Your task to perform on an android device: Is it going to rain this weekend? Image 0: 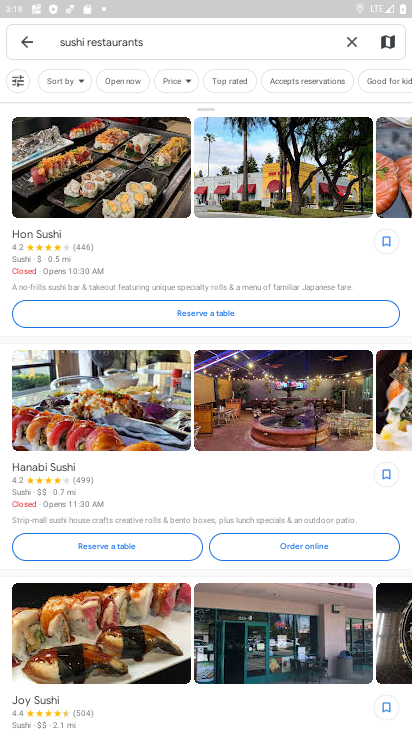
Step 0: press home button
Your task to perform on an android device: Is it going to rain this weekend? Image 1: 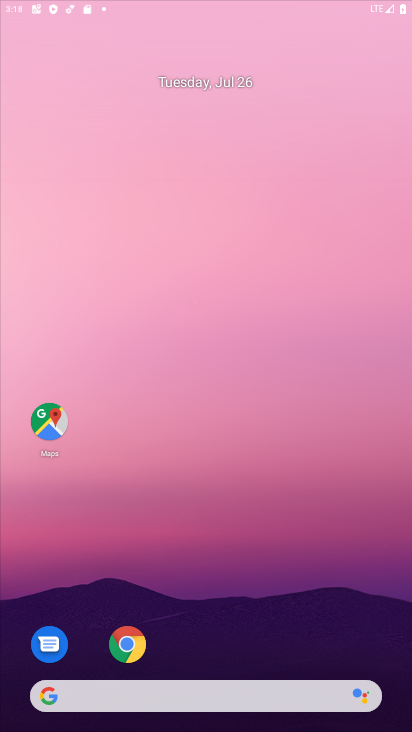
Step 1: drag from (168, 689) to (179, 230)
Your task to perform on an android device: Is it going to rain this weekend? Image 2: 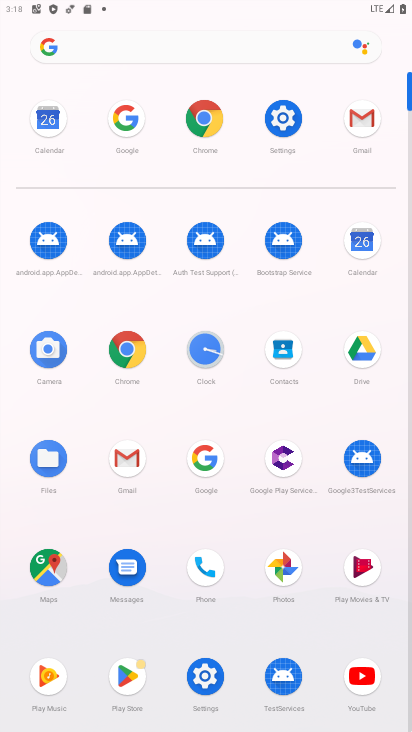
Step 2: click (204, 466)
Your task to perform on an android device: Is it going to rain this weekend? Image 3: 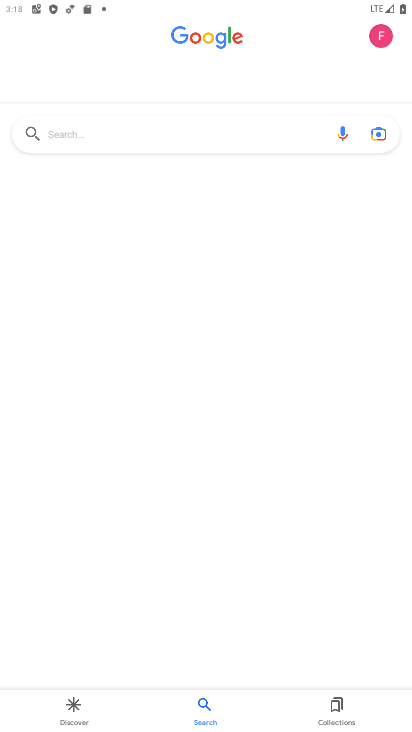
Step 3: click (161, 117)
Your task to perform on an android device: Is it going to rain this weekend? Image 4: 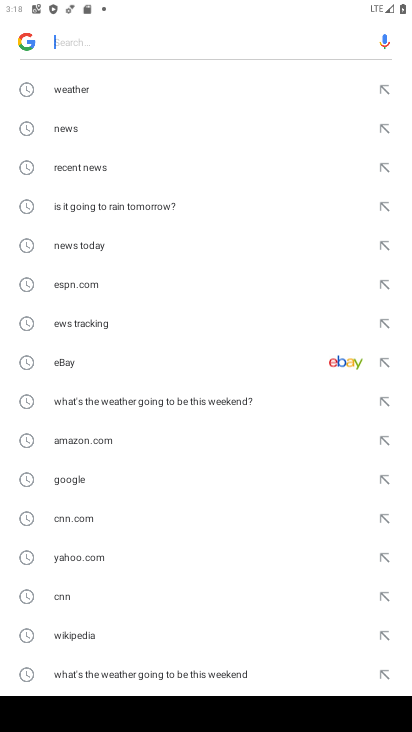
Step 4: drag from (168, 517) to (186, 188)
Your task to perform on an android device: Is it going to rain this weekend? Image 5: 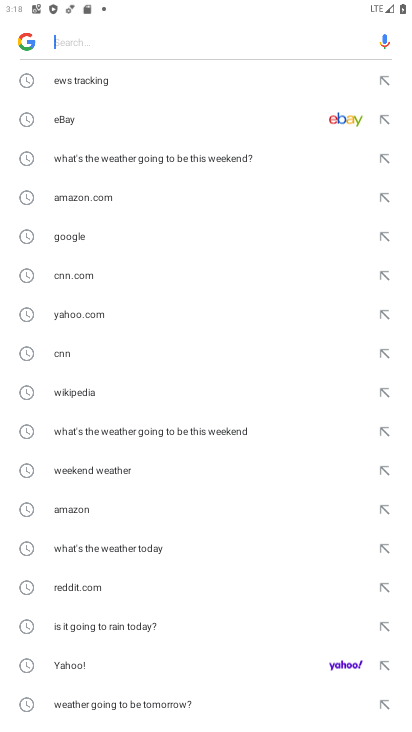
Step 5: drag from (137, 699) to (161, 297)
Your task to perform on an android device: Is it going to rain this weekend? Image 6: 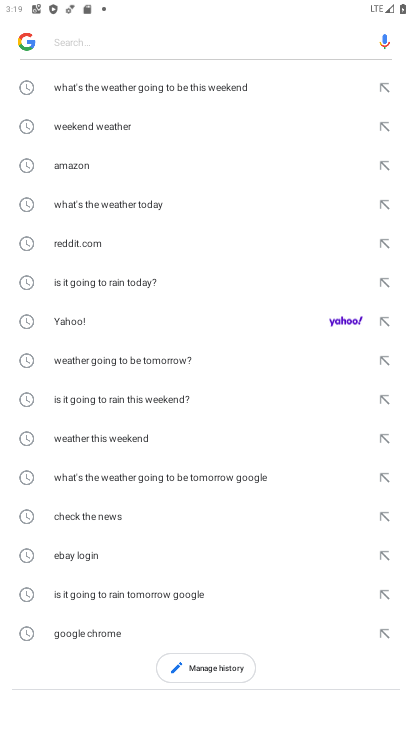
Step 6: click (91, 404)
Your task to perform on an android device: Is it going to rain this weekend? Image 7: 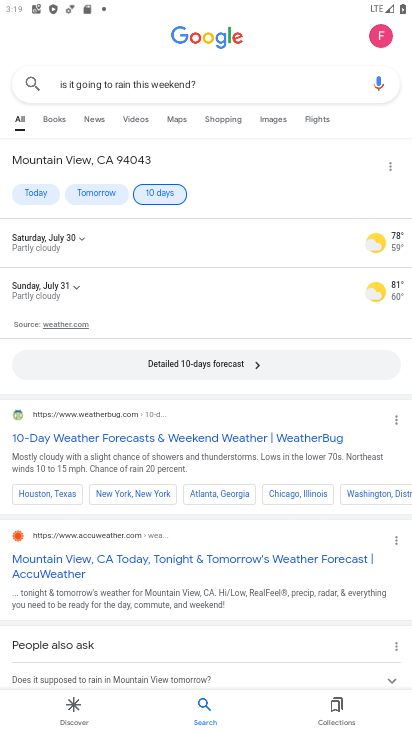
Step 7: click (191, 363)
Your task to perform on an android device: Is it going to rain this weekend? Image 8: 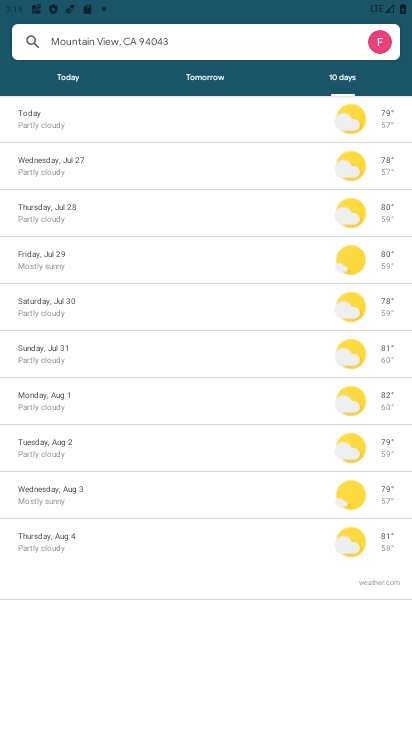
Step 8: task complete